Your task to perform on an android device: turn pop-ups on in chrome Image 0: 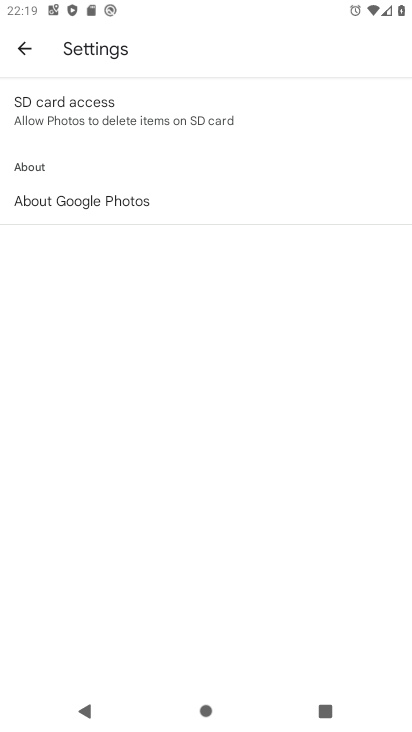
Step 0: press home button
Your task to perform on an android device: turn pop-ups on in chrome Image 1: 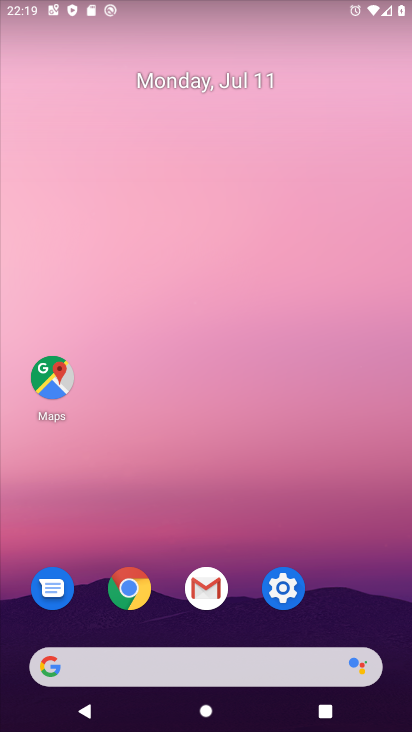
Step 1: click (146, 586)
Your task to perform on an android device: turn pop-ups on in chrome Image 2: 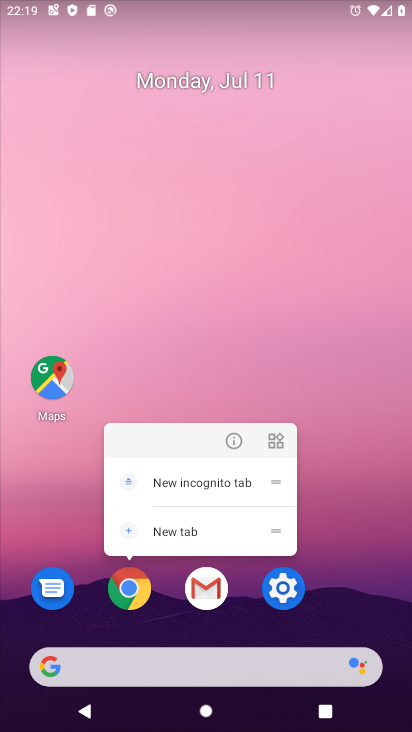
Step 2: click (133, 591)
Your task to perform on an android device: turn pop-ups on in chrome Image 3: 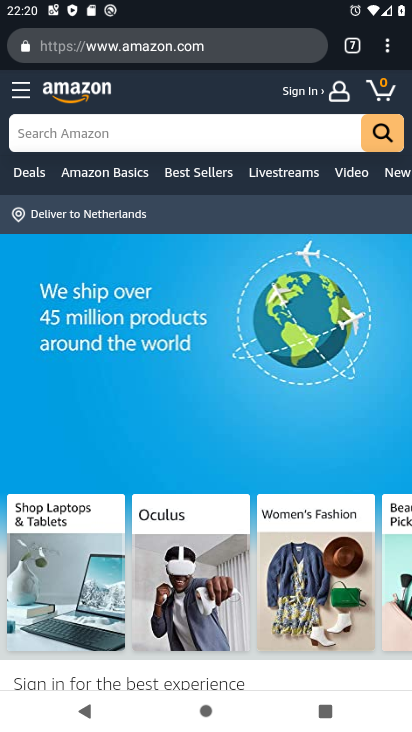
Step 3: click (384, 32)
Your task to perform on an android device: turn pop-ups on in chrome Image 4: 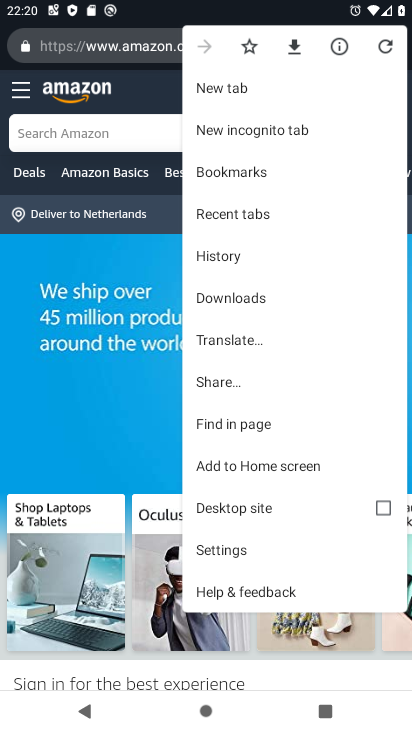
Step 4: click (227, 550)
Your task to perform on an android device: turn pop-ups on in chrome Image 5: 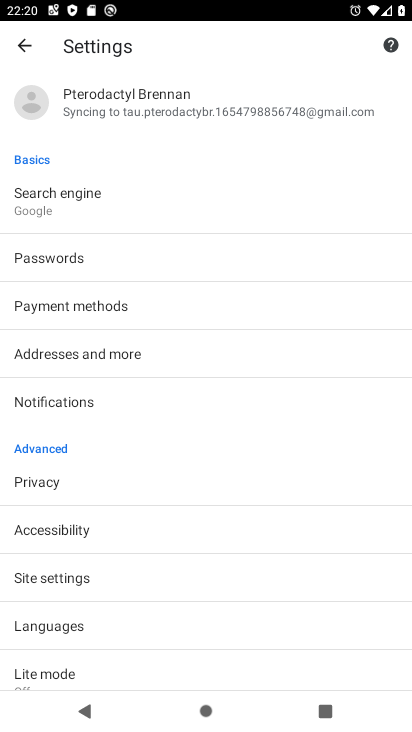
Step 5: click (64, 580)
Your task to perform on an android device: turn pop-ups on in chrome Image 6: 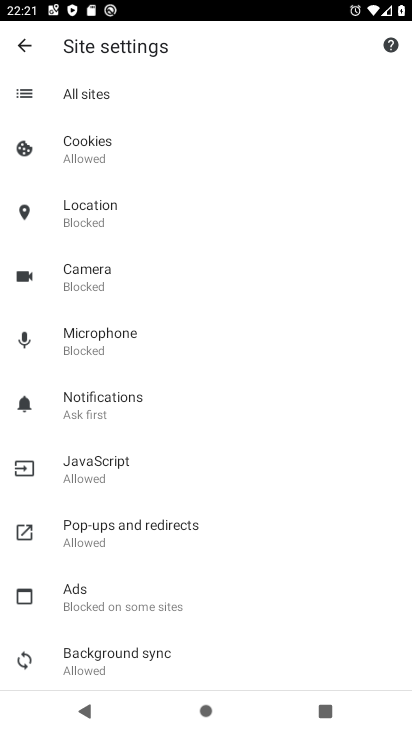
Step 6: click (106, 533)
Your task to perform on an android device: turn pop-ups on in chrome Image 7: 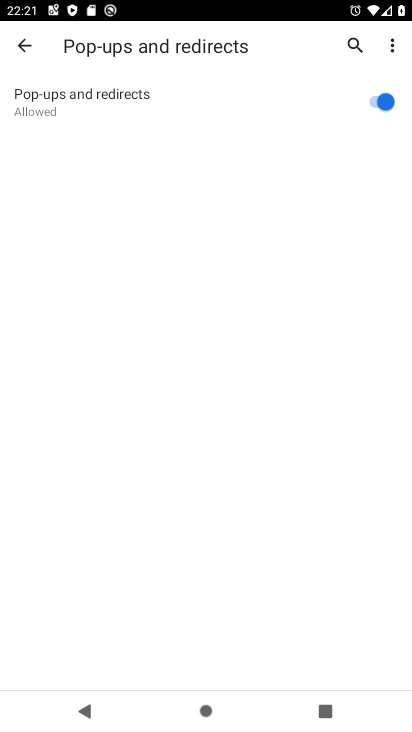
Step 7: task complete